Your task to perform on an android device: What's on my calendar today? Image 0: 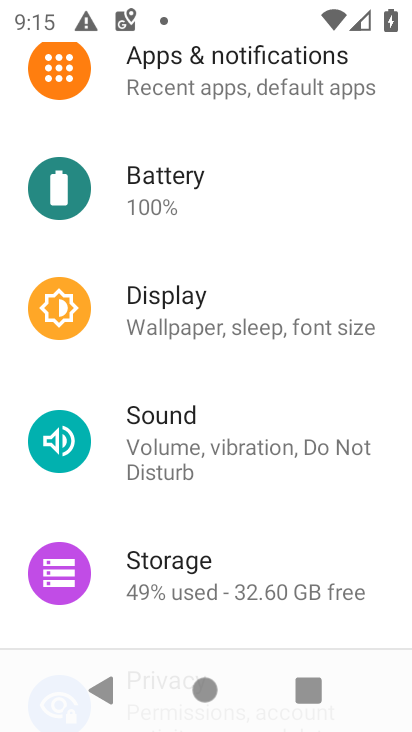
Step 0: press home button
Your task to perform on an android device: What's on my calendar today? Image 1: 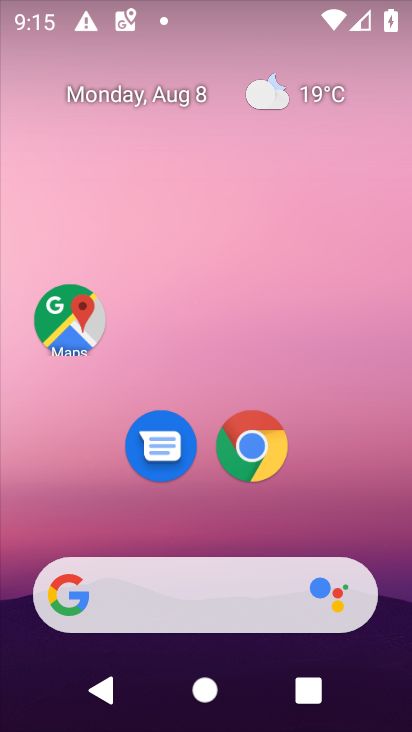
Step 1: drag from (366, 521) to (372, 155)
Your task to perform on an android device: What's on my calendar today? Image 2: 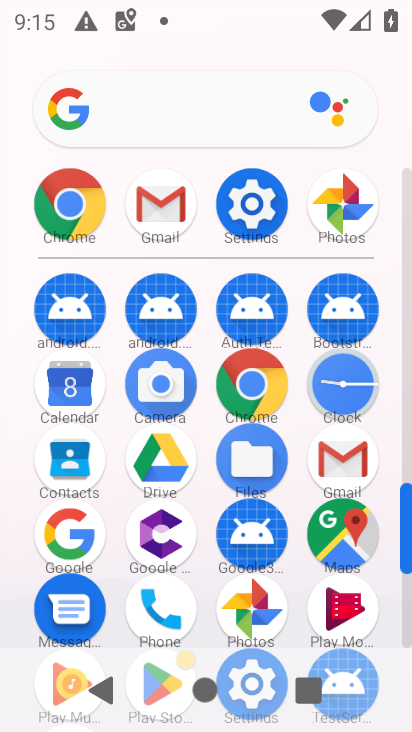
Step 2: click (63, 379)
Your task to perform on an android device: What's on my calendar today? Image 3: 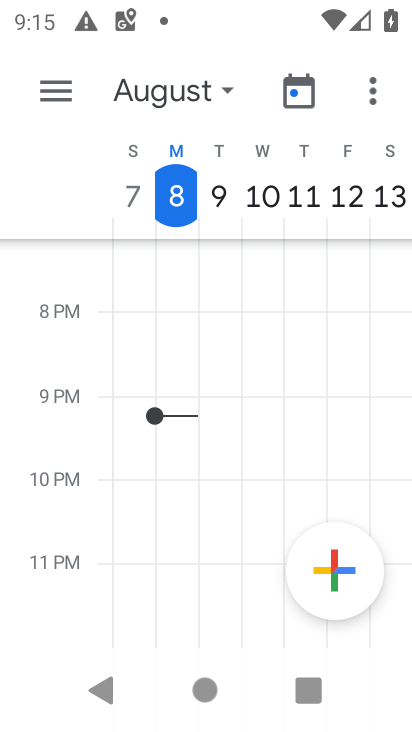
Step 3: click (42, 94)
Your task to perform on an android device: What's on my calendar today? Image 4: 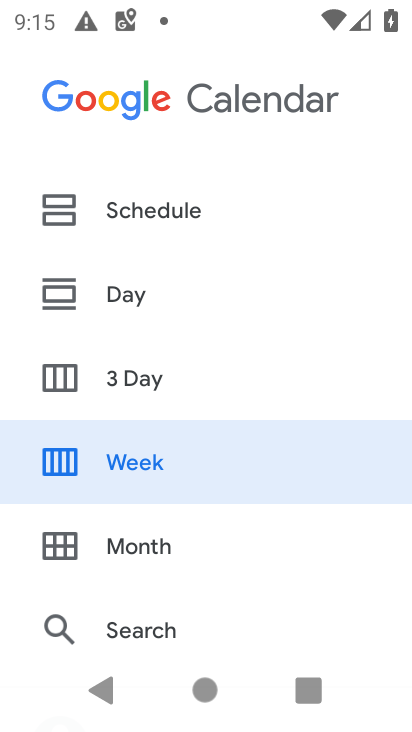
Step 4: click (120, 293)
Your task to perform on an android device: What's on my calendar today? Image 5: 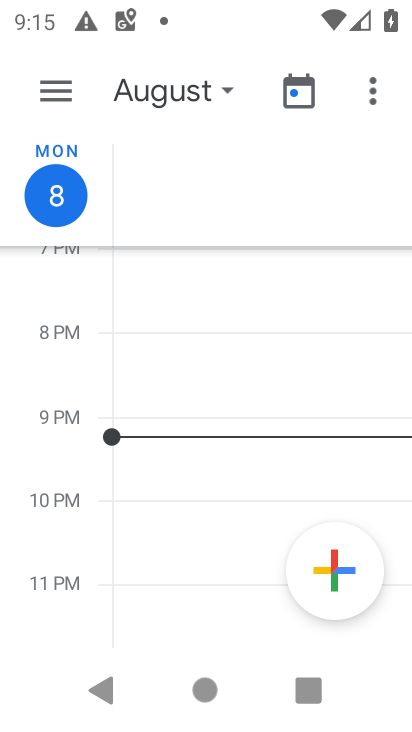
Step 5: task complete